Your task to perform on an android device: turn off location Image 0: 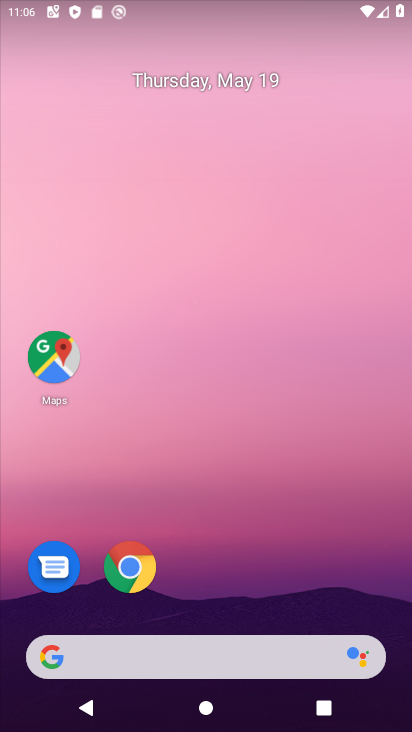
Step 0: drag from (393, 611) to (365, 93)
Your task to perform on an android device: turn off location Image 1: 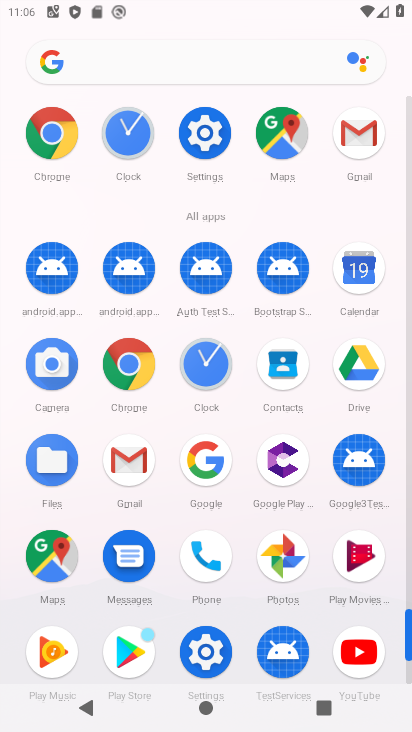
Step 1: click (202, 652)
Your task to perform on an android device: turn off location Image 2: 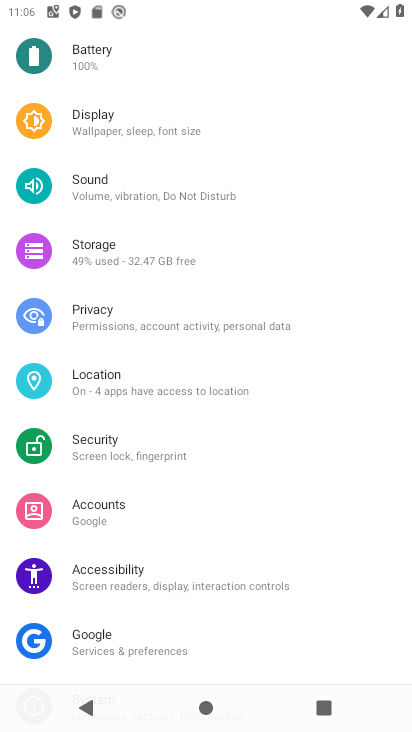
Step 2: click (102, 379)
Your task to perform on an android device: turn off location Image 3: 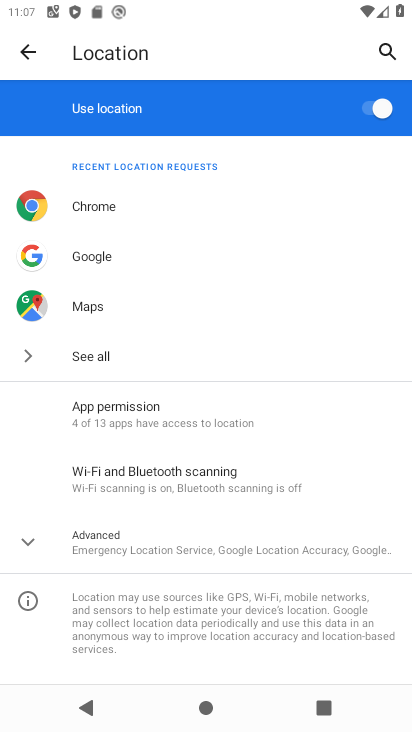
Step 3: click (363, 105)
Your task to perform on an android device: turn off location Image 4: 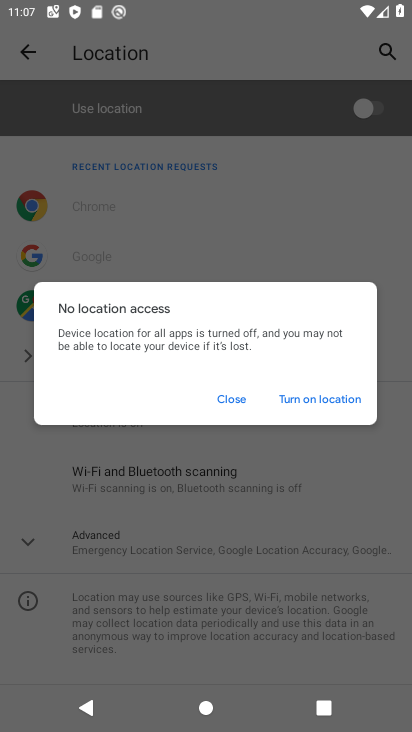
Step 4: task complete